Your task to perform on an android device: choose inbox layout in the gmail app Image 0: 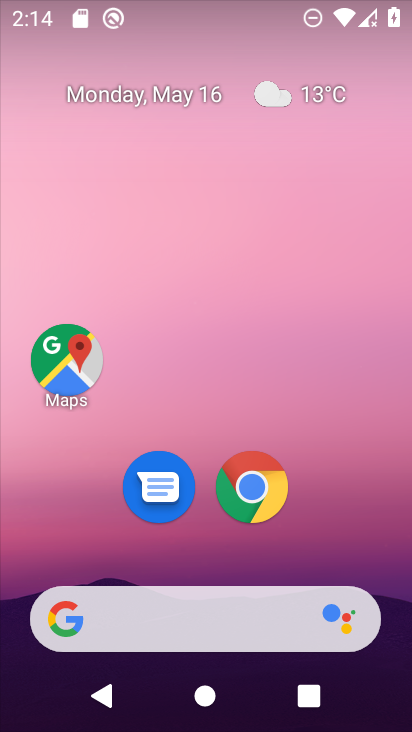
Step 0: drag from (394, 651) to (311, 190)
Your task to perform on an android device: choose inbox layout in the gmail app Image 1: 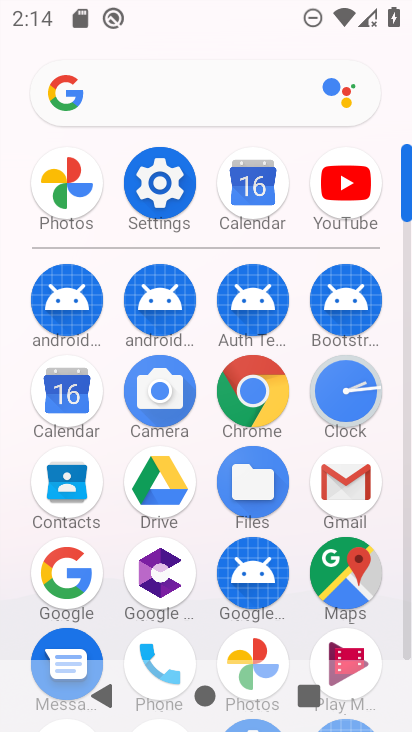
Step 1: click (339, 496)
Your task to perform on an android device: choose inbox layout in the gmail app Image 2: 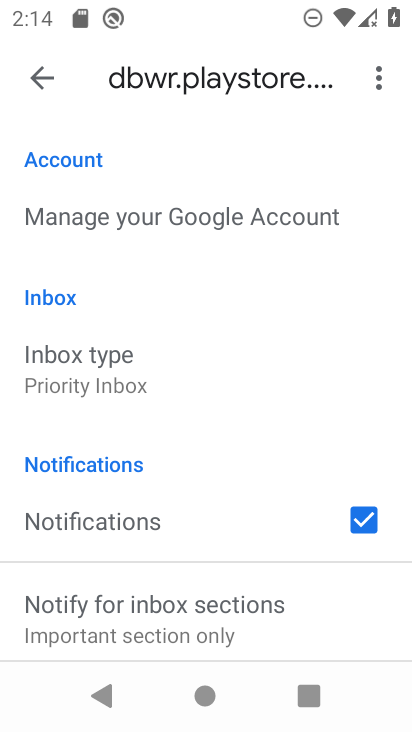
Step 2: click (65, 372)
Your task to perform on an android device: choose inbox layout in the gmail app Image 3: 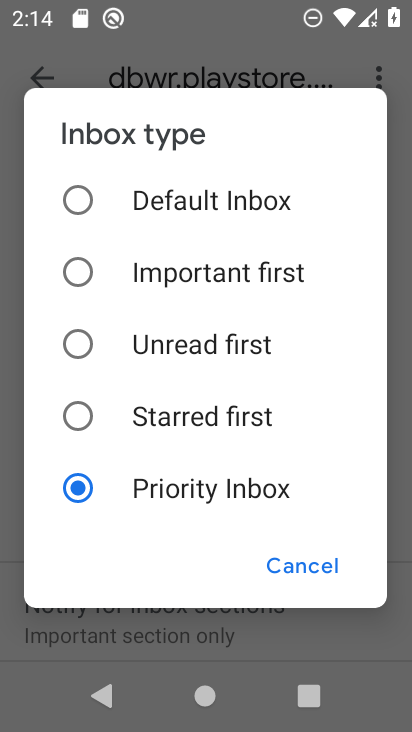
Step 3: click (91, 425)
Your task to perform on an android device: choose inbox layout in the gmail app Image 4: 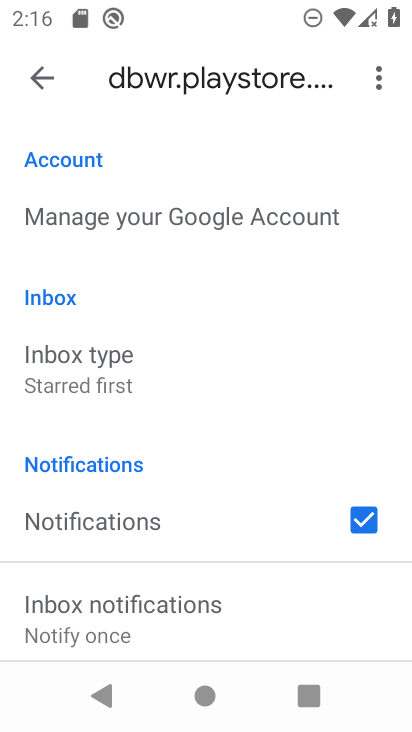
Step 4: task complete